Your task to perform on an android device: allow notifications from all sites in the chrome app Image 0: 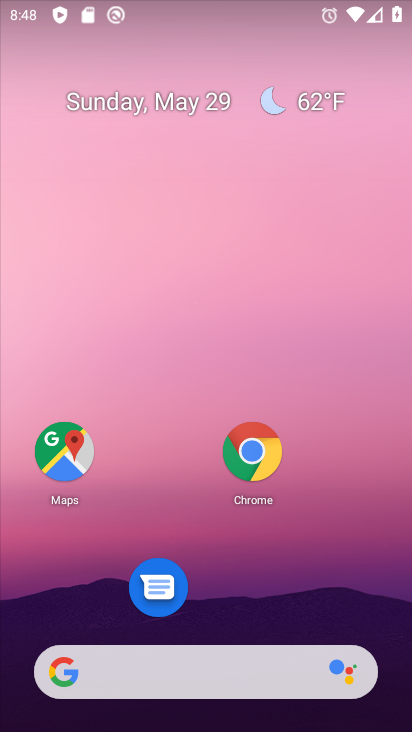
Step 0: click (242, 450)
Your task to perform on an android device: allow notifications from all sites in the chrome app Image 1: 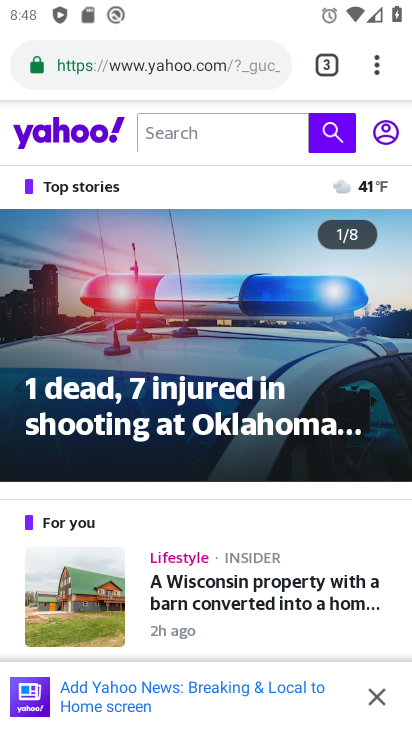
Step 1: click (383, 58)
Your task to perform on an android device: allow notifications from all sites in the chrome app Image 2: 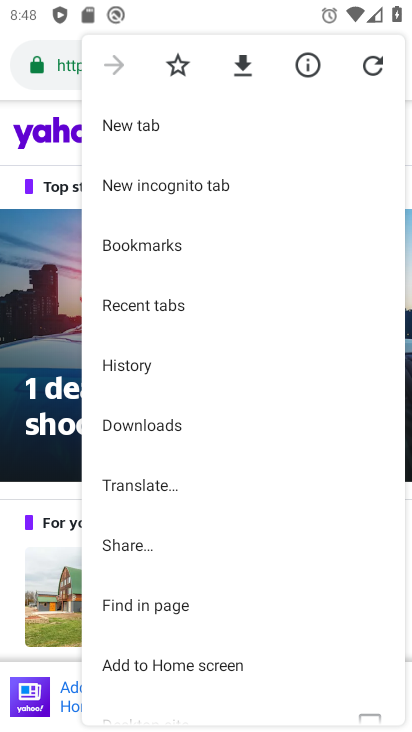
Step 2: drag from (157, 627) to (189, 195)
Your task to perform on an android device: allow notifications from all sites in the chrome app Image 3: 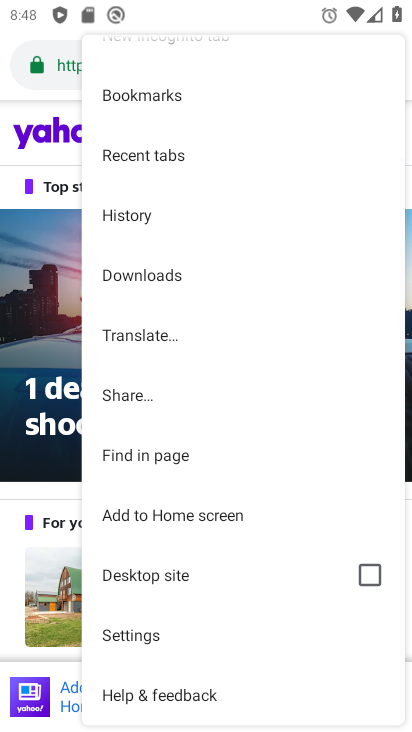
Step 3: click (238, 627)
Your task to perform on an android device: allow notifications from all sites in the chrome app Image 4: 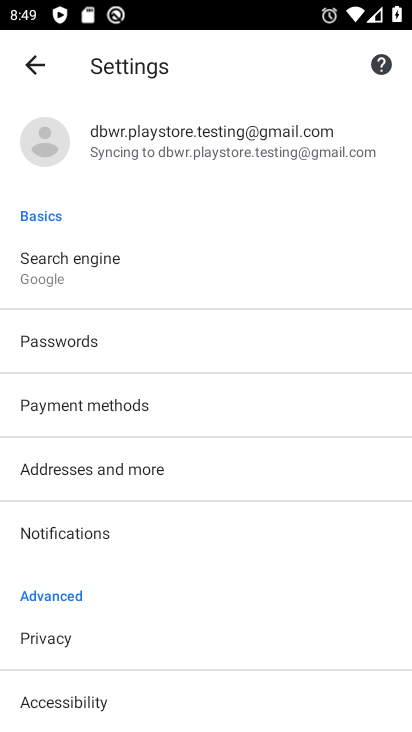
Step 4: click (80, 552)
Your task to perform on an android device: allow notifications from all sites in the chrome app Image 5: 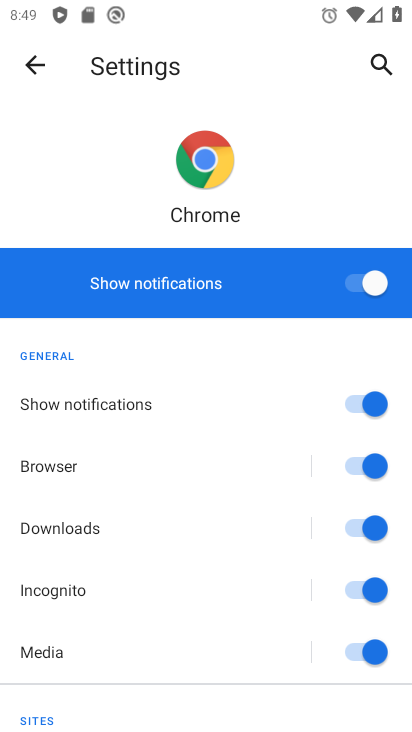
Step 5: task complete